Your task to perform on an android device: Search for vegetarian restaurants on Maps Image 0: 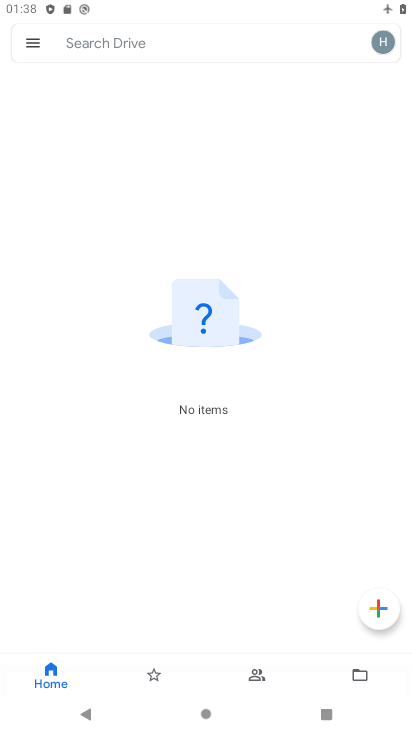
Step 0: press home button
Your task to perform on an android device: Search for vegetarian restaurants on Maps Image 1: 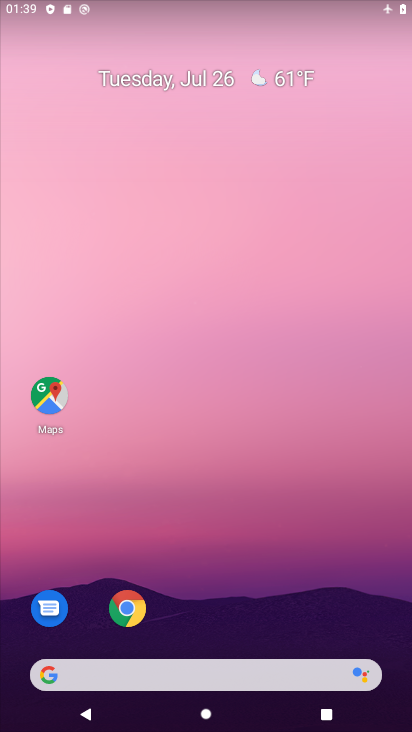
Step 1: click (42, 404)
Your task to perform on an android device: Search for vegetarian restaurants on Maps Image 2: 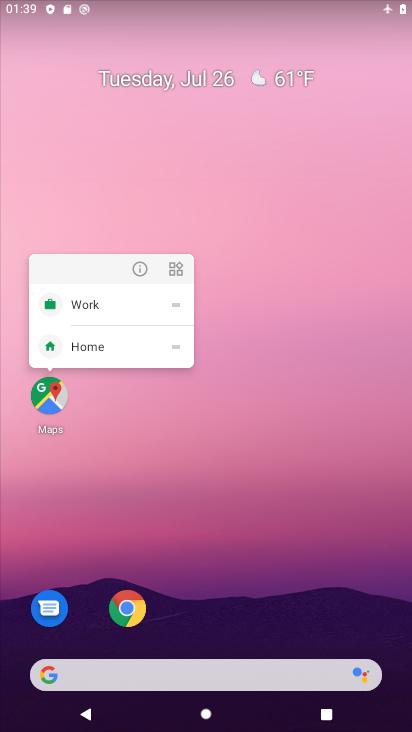
Step 2: click (41, 403)
Your task to perform on an android device: Search for vegetarian restaurants on Maps Image 3: 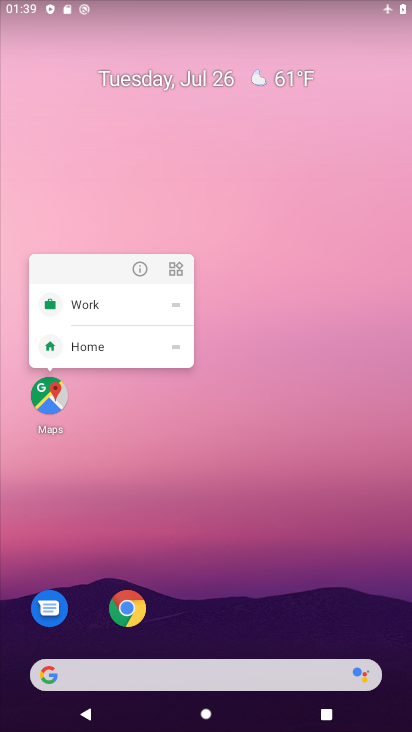
Step 3: click (41, 387)
Your task to perform on an android device: Search for vegetarian restaurants on Maps Image 4: 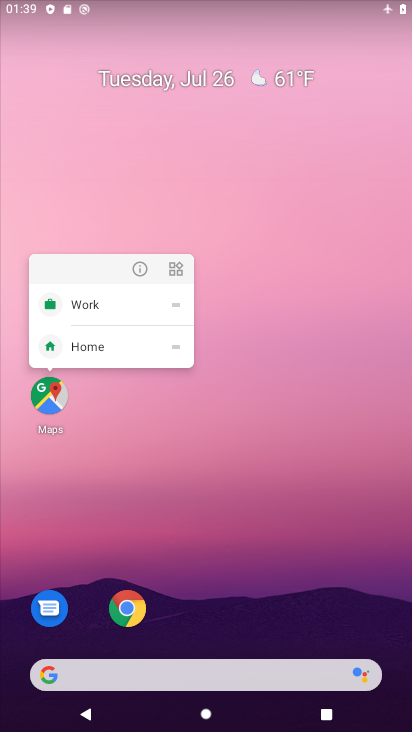
Step 4: click (41, 387)
Your task to perform on an android device: Search for vegetarian restaurants on Maps Image 5: 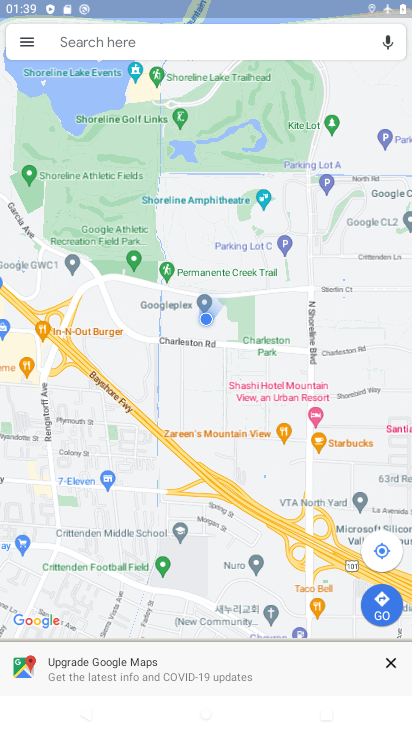
Step 5: click (153, 34)
Your task to perform on an android device: Search for vegetarian restaurants on Maps Image 6: 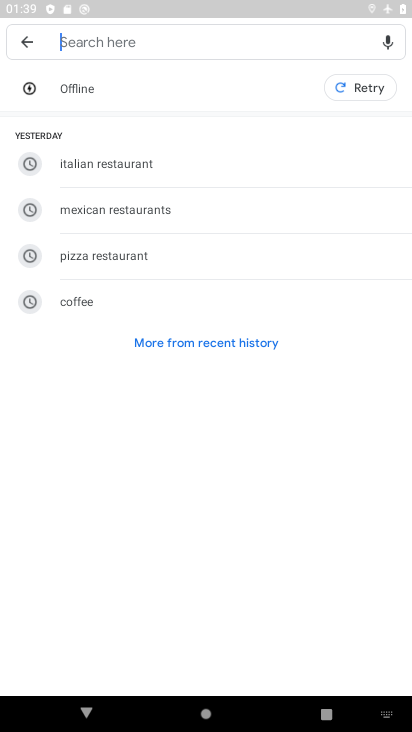
Step 6: drag from (252, 723) to (354, 517)
Your task to perform on an android device: Search for vegetarian restaurants on Maps Image 7: 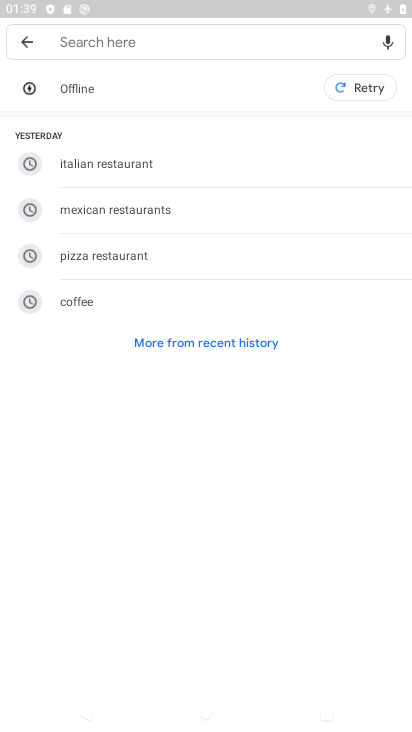
Step 7: type "vegetarian restaurants"
Your task to perform on an android device: Search for vegetarian restaurants on Maps Image 8: 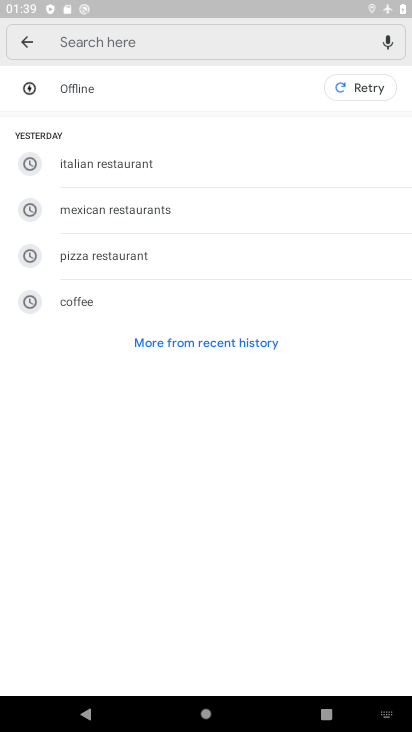
Step 8: type ""
Your task to perform on an android device: Search for vegetarian restaurants on Maps Image 9: 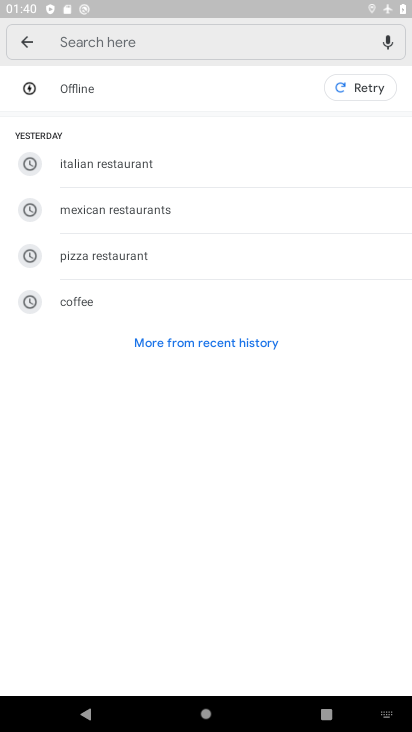
Step 9: type "vegetarian restaurants"
Your task to perform on an android device: Search for vegetarian restaurants on Maps Image 10: 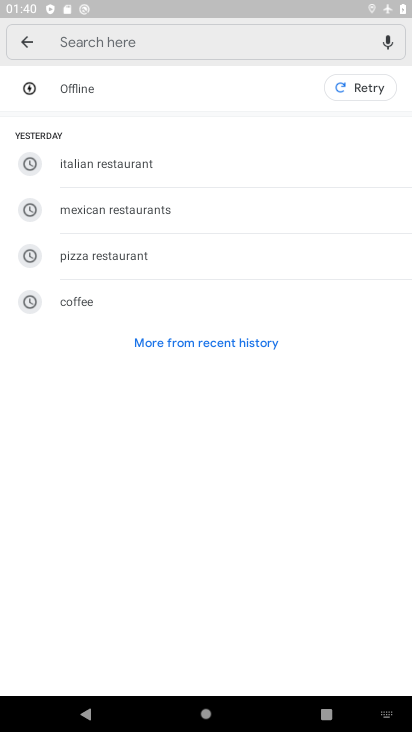
Step 10: type ""
Your task to perform on an android device: Search for vegetarian restaurants on Maps Image 11: 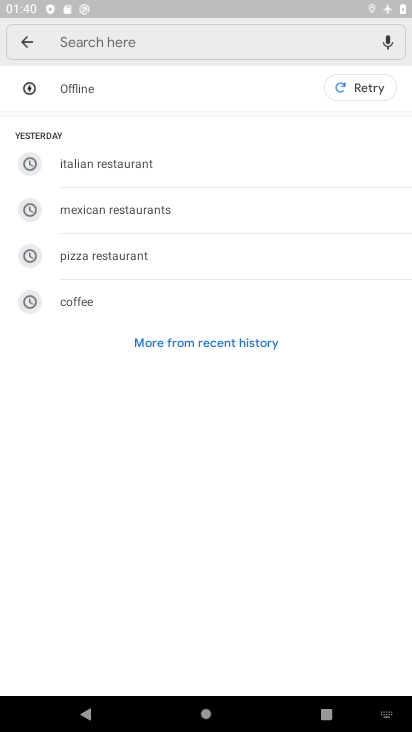
Step 11: click (178, 37)
Your task to perform on an android device: Search for vegetarian restaurants on Maps Image 12: 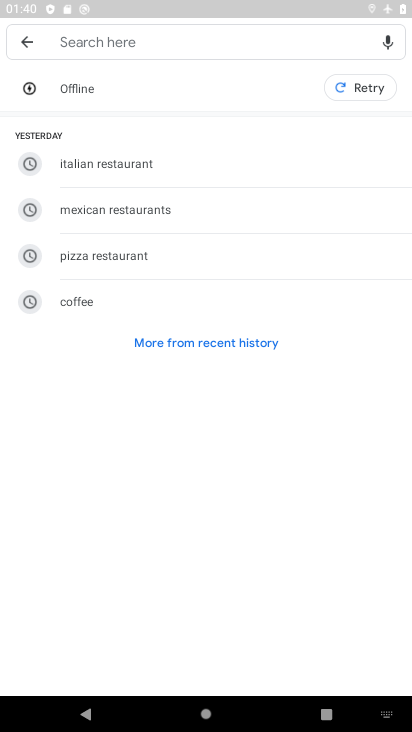
Step 12: type "vegetarian restaurants"
Your task to perform on an android device: Search for vegetarian restaurants on Maps Image 13: 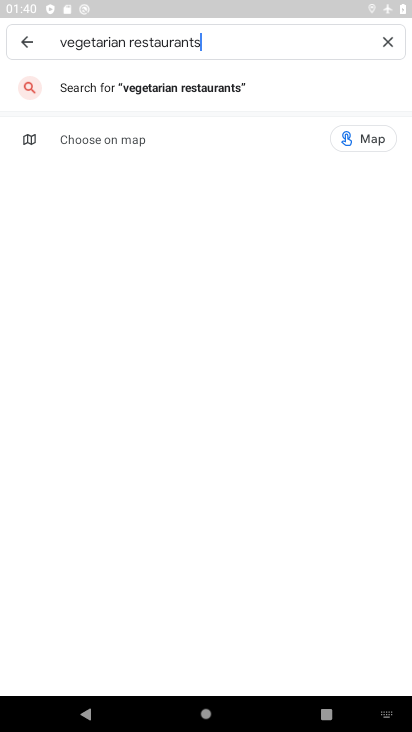
Step 13: type ""
Your task to perform on an android device: Search for vegetarian restaurants on Maps Image 14: 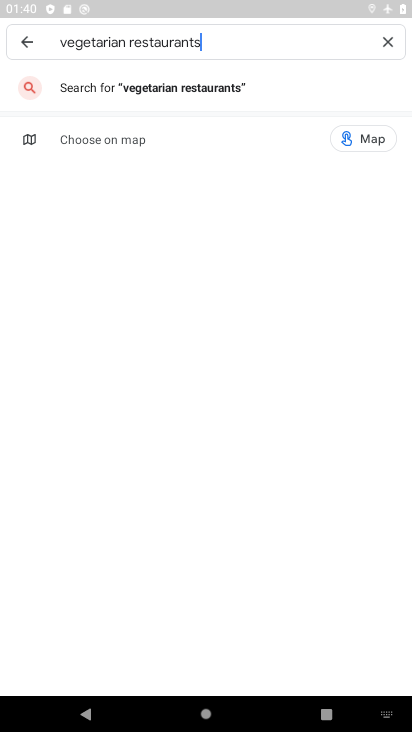
Step 14: click (193, 84)
Your task to perform on an android device: Search for vegetarian restaurants on Maps Image 15: 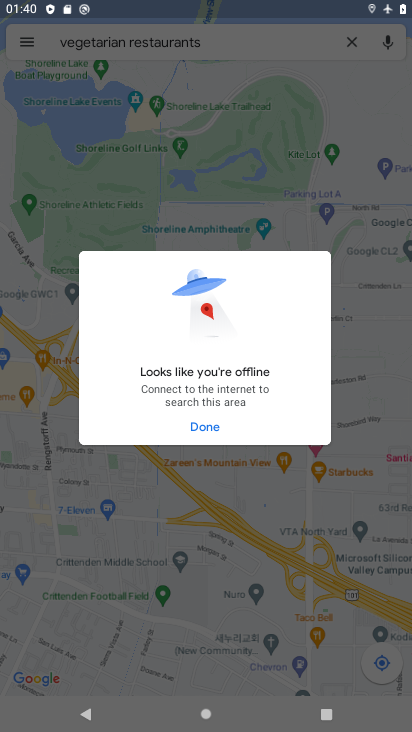
Step 15: drag from (269, 18) to (389, 329)
Your task to perform on an android device: Search for vegetarian restaurants on Maps Image 16: 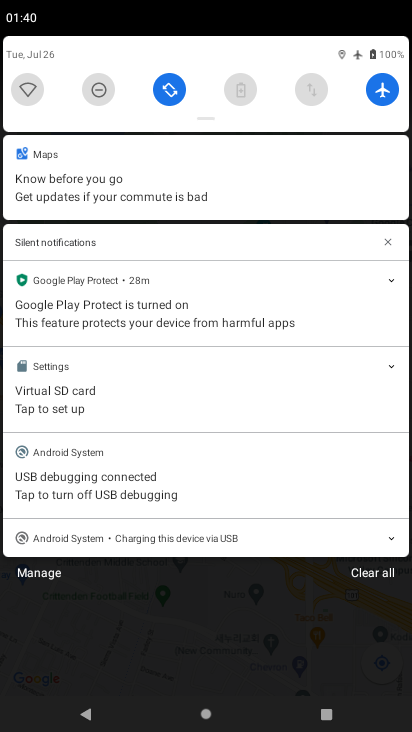
Step 16: click (385, 87)
Your task to perform on an android device: Search for vegetarian restaurants on Maps Image 17: 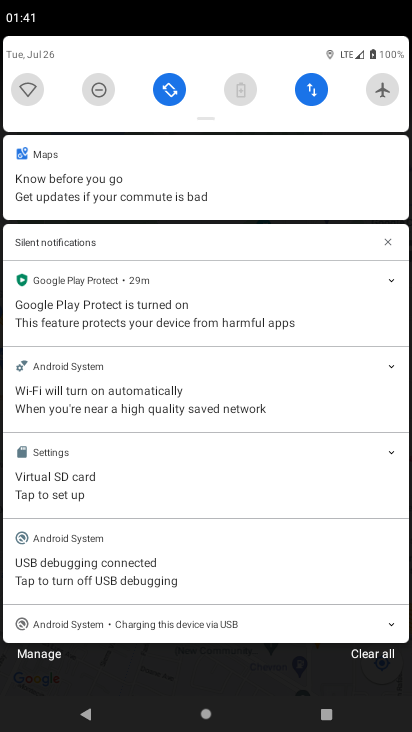
Step 17: task complete